Your task to perform on an android device: Show me recent news Image 0: 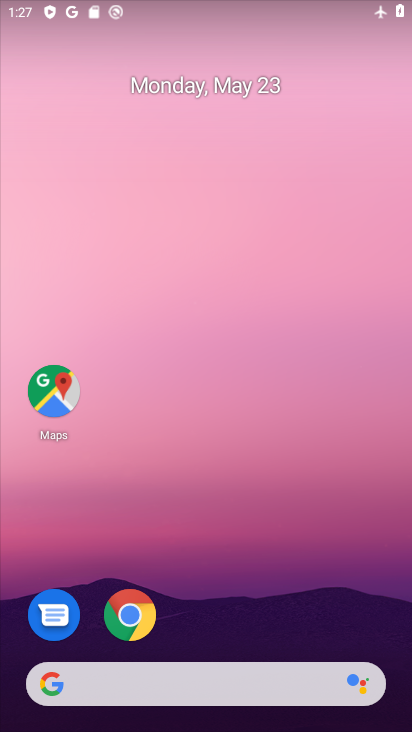
Step 0: click (190, 693)
Your task to perform on an android device: Show me recent news Image 1: 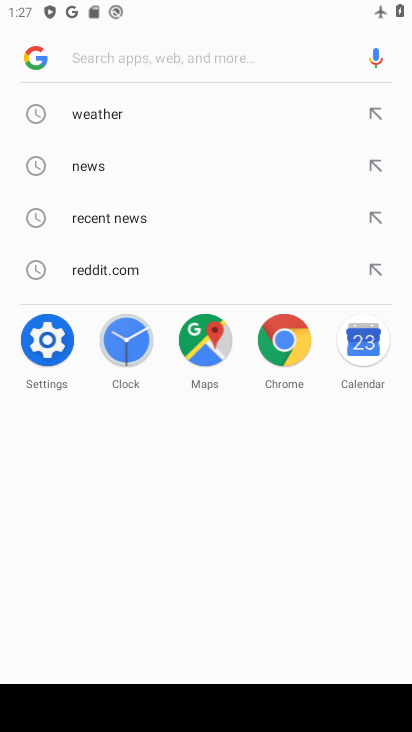
Step 1: click (53, 167)
Your task to perform on an android device: Show me recent news Image 2: 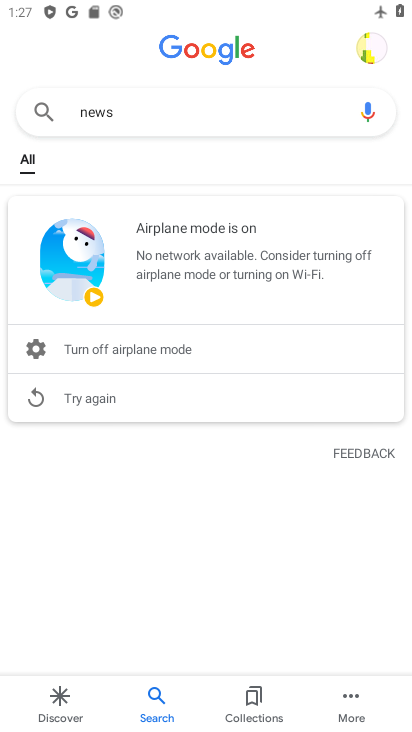
Step 2: task complete